Your task to perform on an android device: Clear all items from cart on ebay. Add "razer kraken" to the cart on ebay, then select checkout. Image 0: 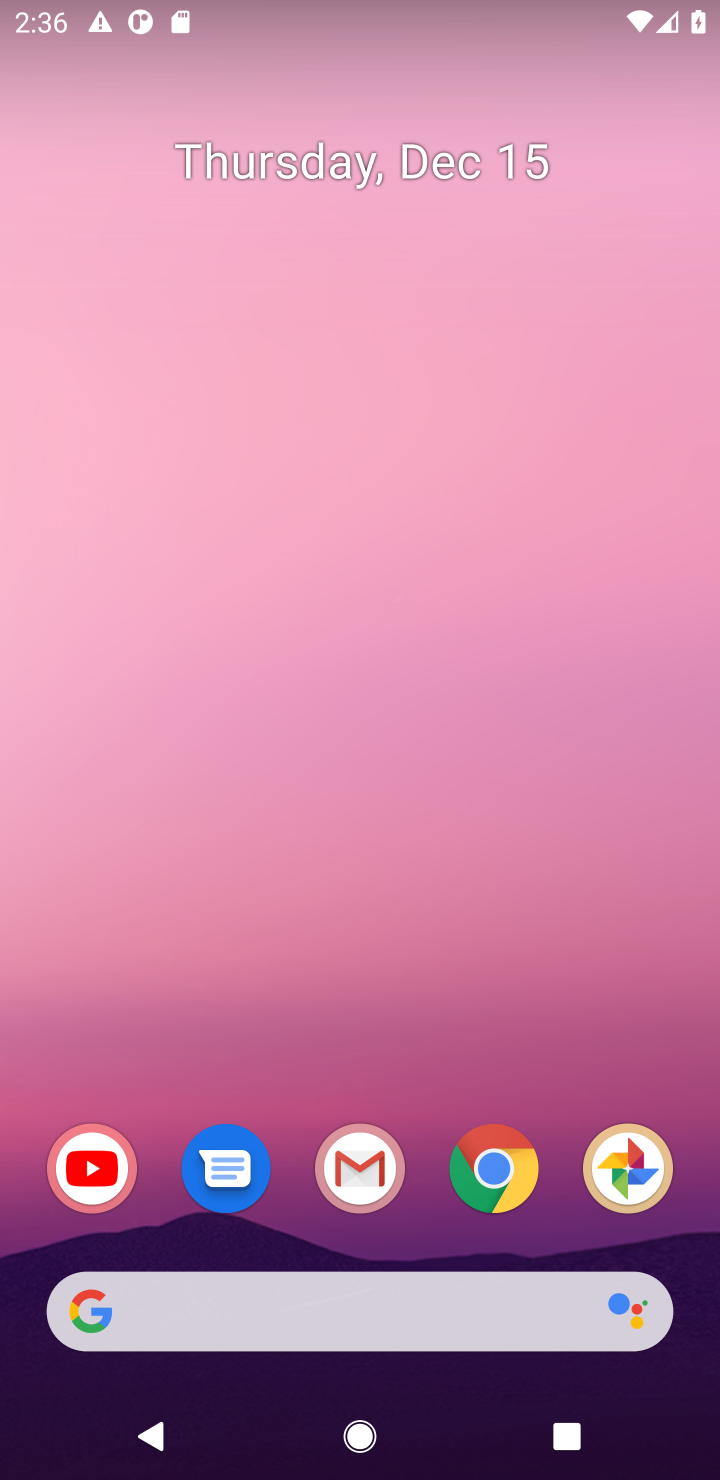
Step 0: click (503, 1179)
Your task to perform on an android device: Clear all items from cart on ebay. Add "razer kraken" to the cart on ebay, then select checkout. Image 1: 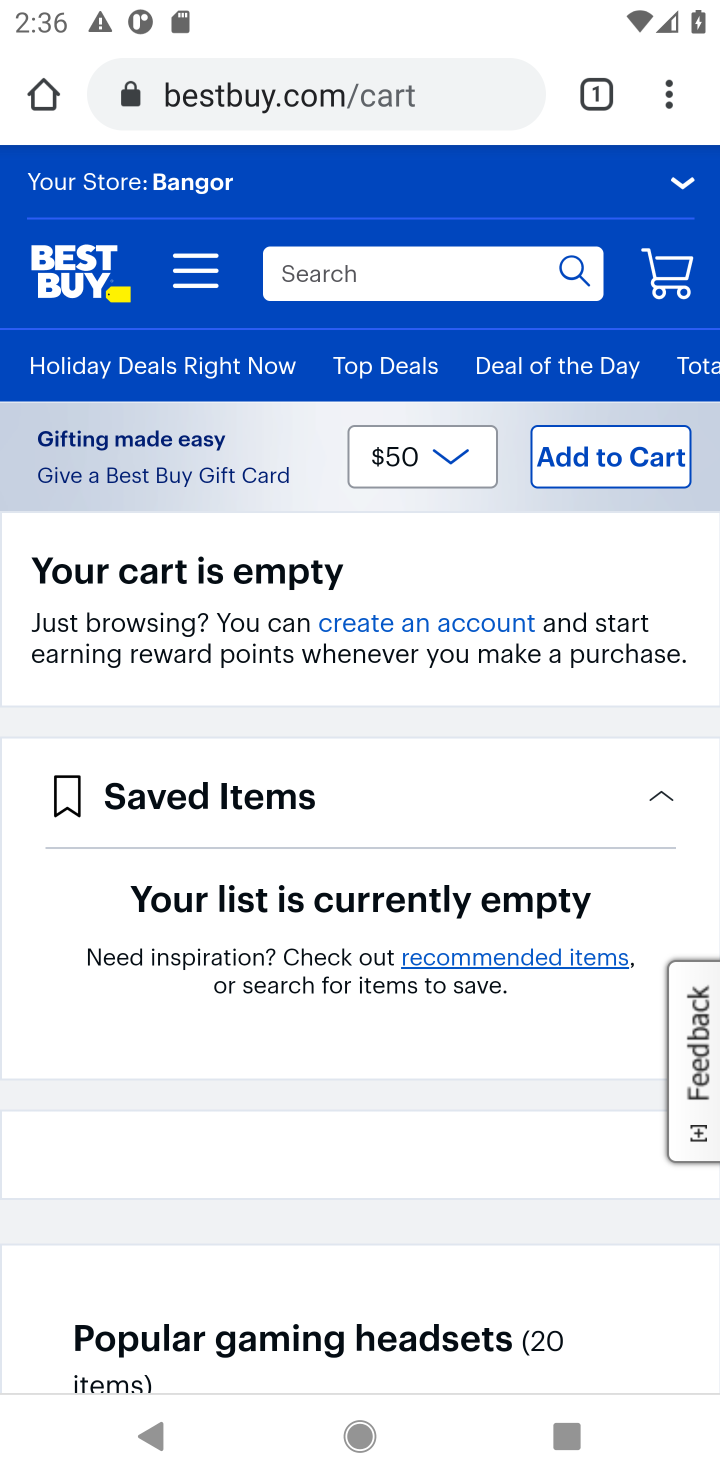
Step 1: click (56, 110)
Your task to perform on an android device: Clear all items from cart on ebay. Add "razer kraken" to the cart on ebay, then select checkout. Image 2: 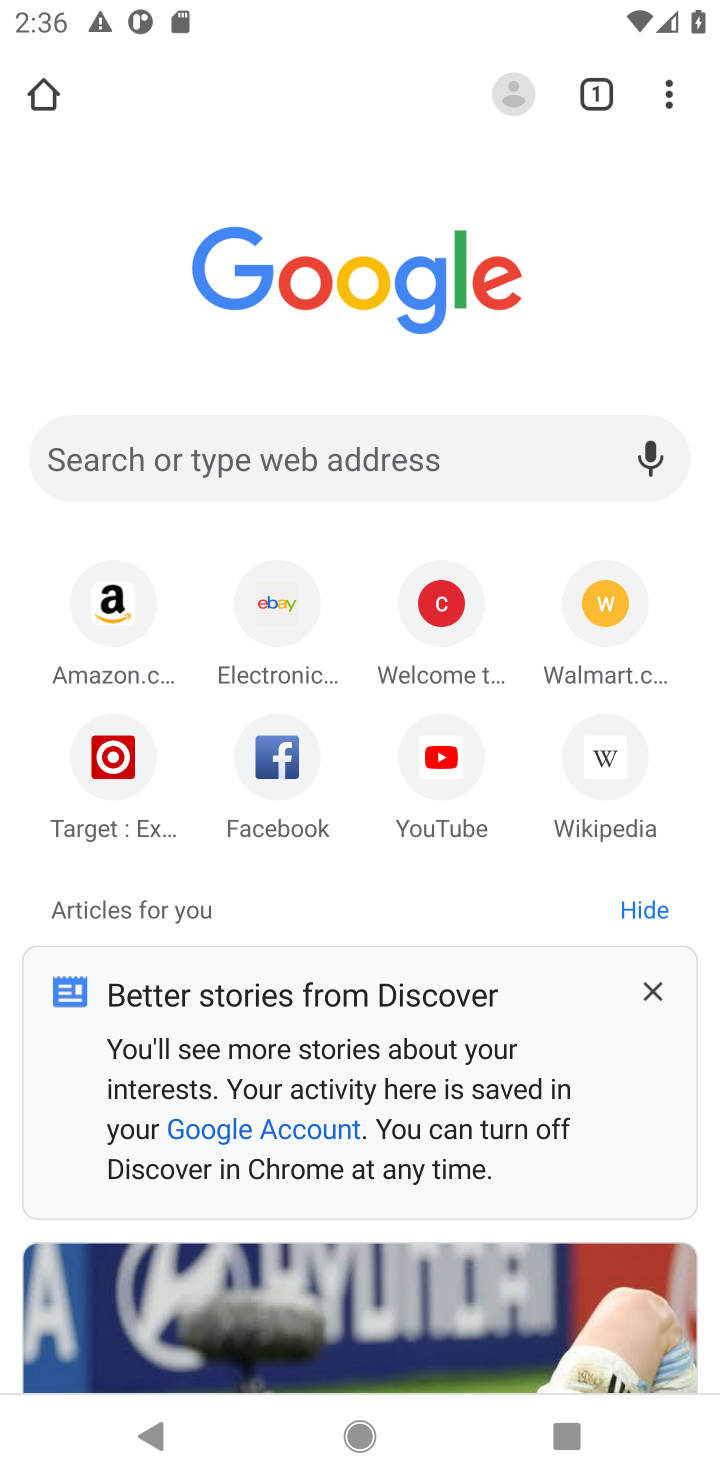
Step 2: click (376, 464)
Your task to perform on an android device: Clear all items from cart on ebay. Add "razer kraken" to the cart on ebay, then select checkout. Image 3: 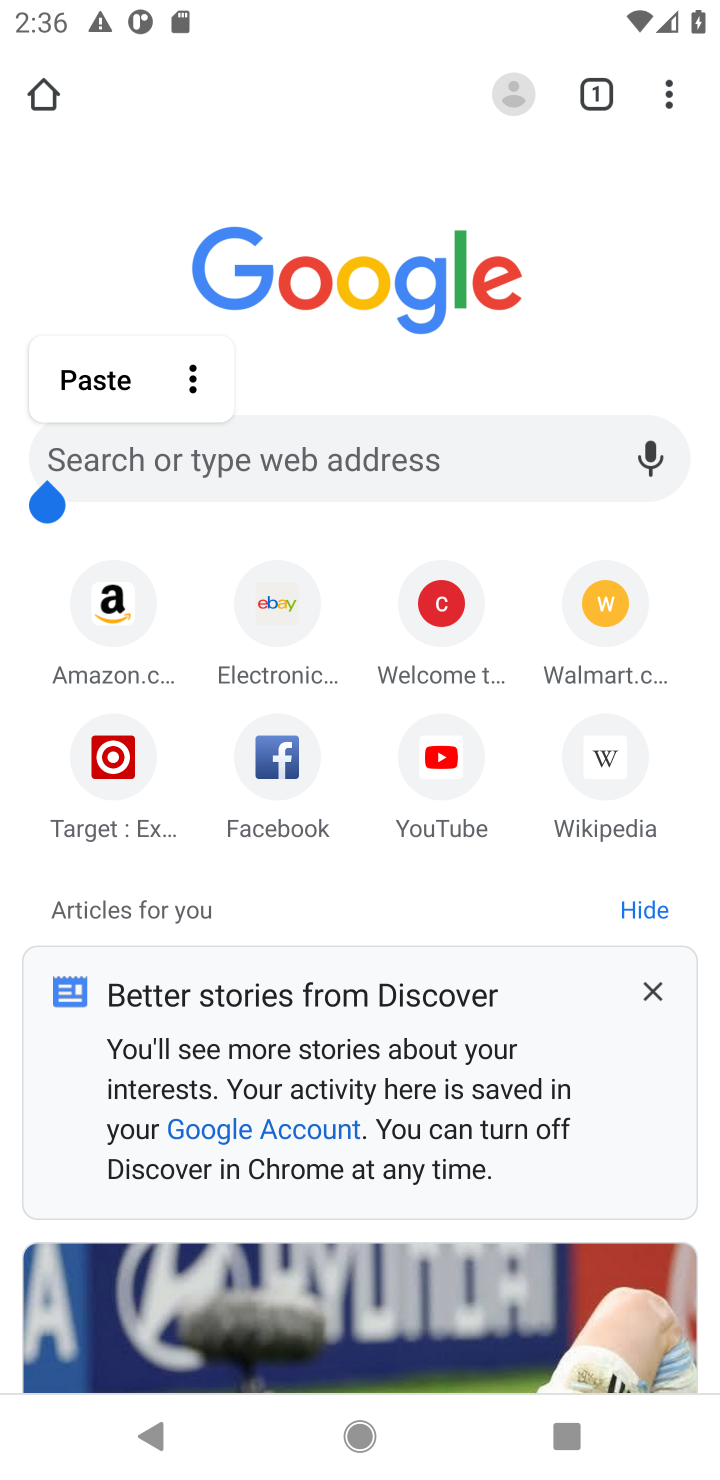
Step 3: click (376, 464)
Your task to perform on an android device: Clear all items from cart on ebay. Add "razer kraken" to the cart on ebay, then select checkout. Image 4: 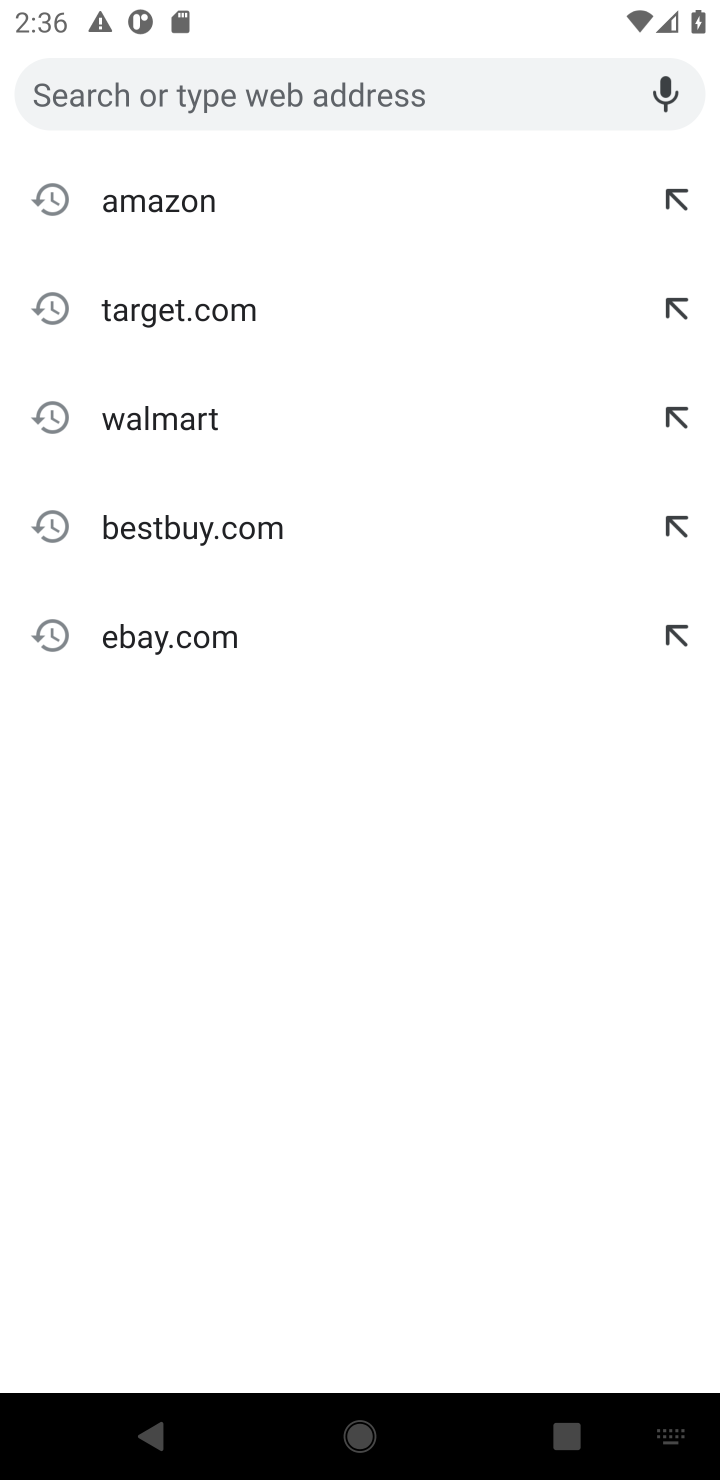
Step 4: click (377, 465)
Your task to perform on an android device: Clear all items from cart on ebay. Add "razer kraken" to the cart on ebay, then select checkout. Image 5: 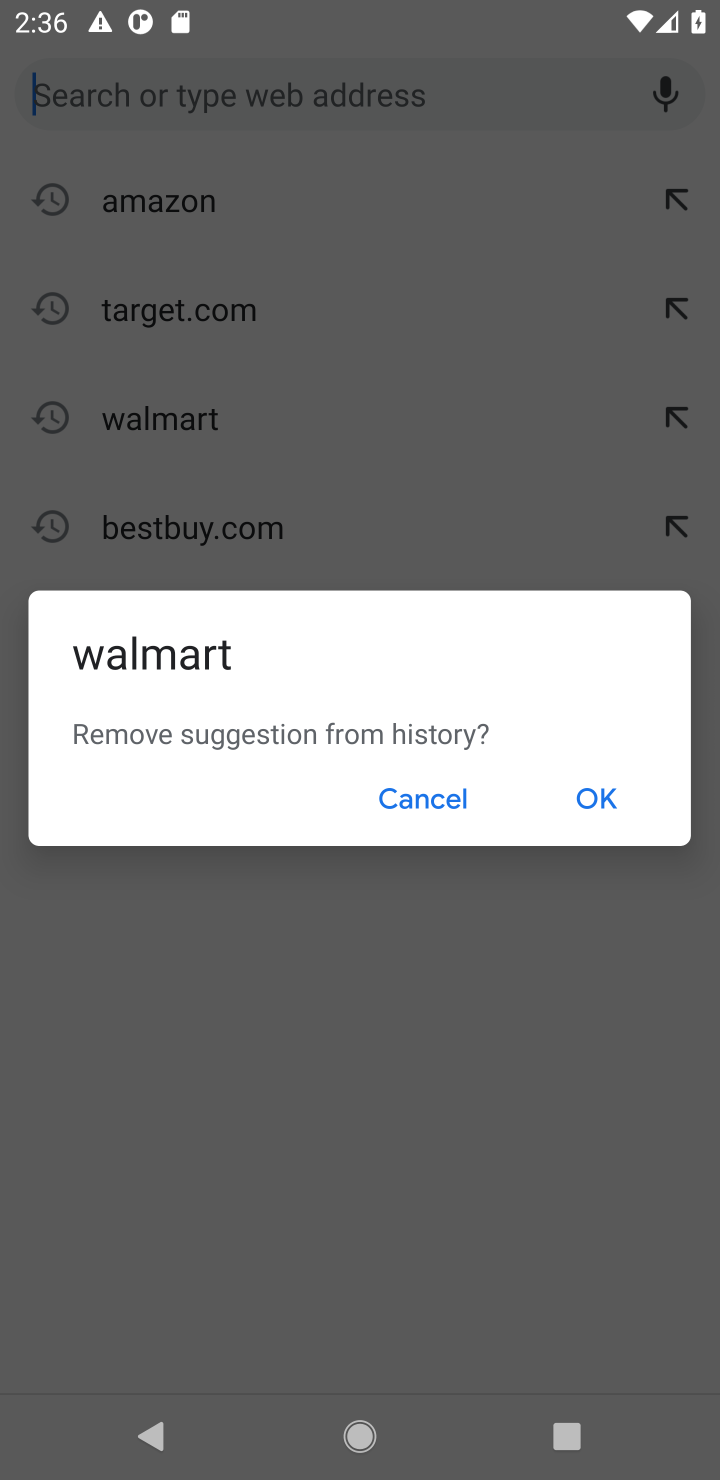
Step 5: click (400, 451)
Your task to perform on an android device: Clear all items from cart on ebay. Add "razer kraken" to the cart on ebay, then select checkout. Image 6: 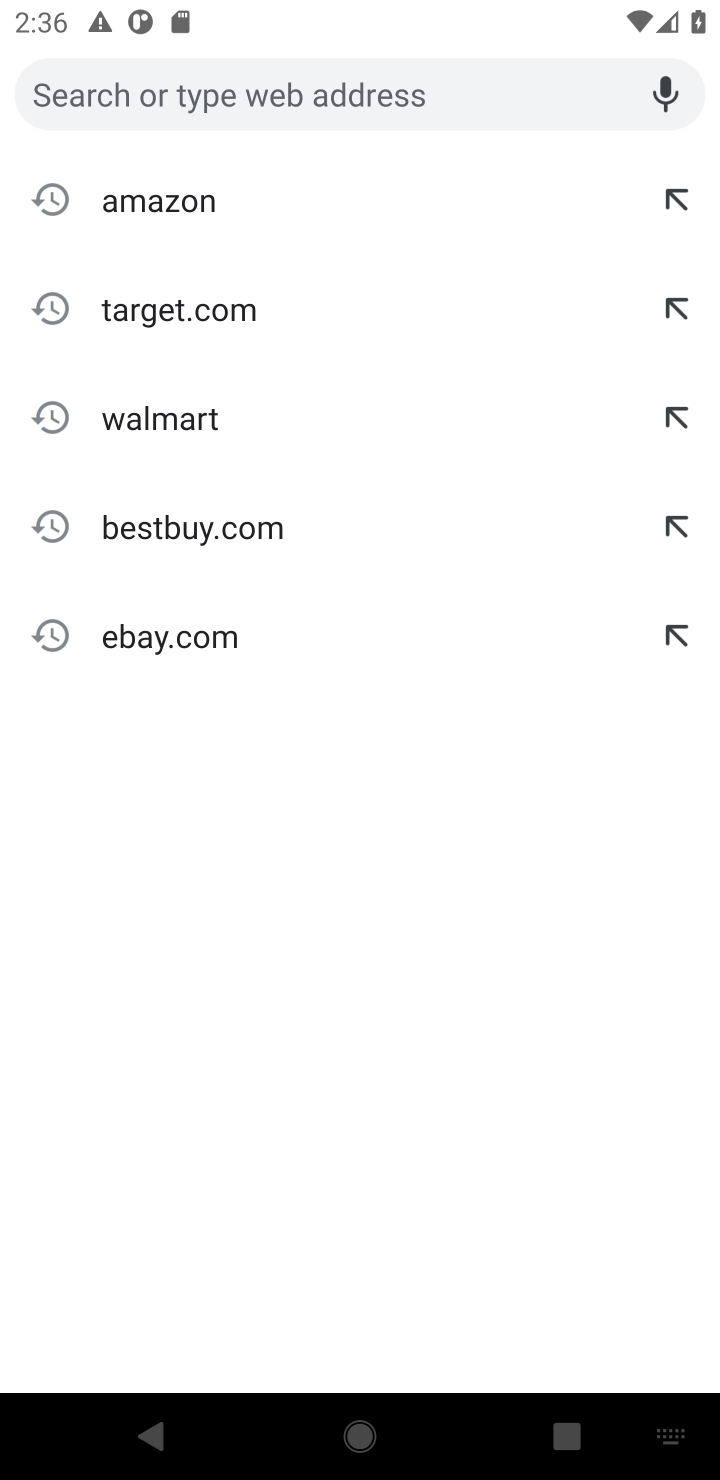
Step 6: click (432, 793)
Your task to perform on an android device: Clear all items from cart on ebay. Add "razer kraken" to the cart on ebay, then select checkout. Image 7: 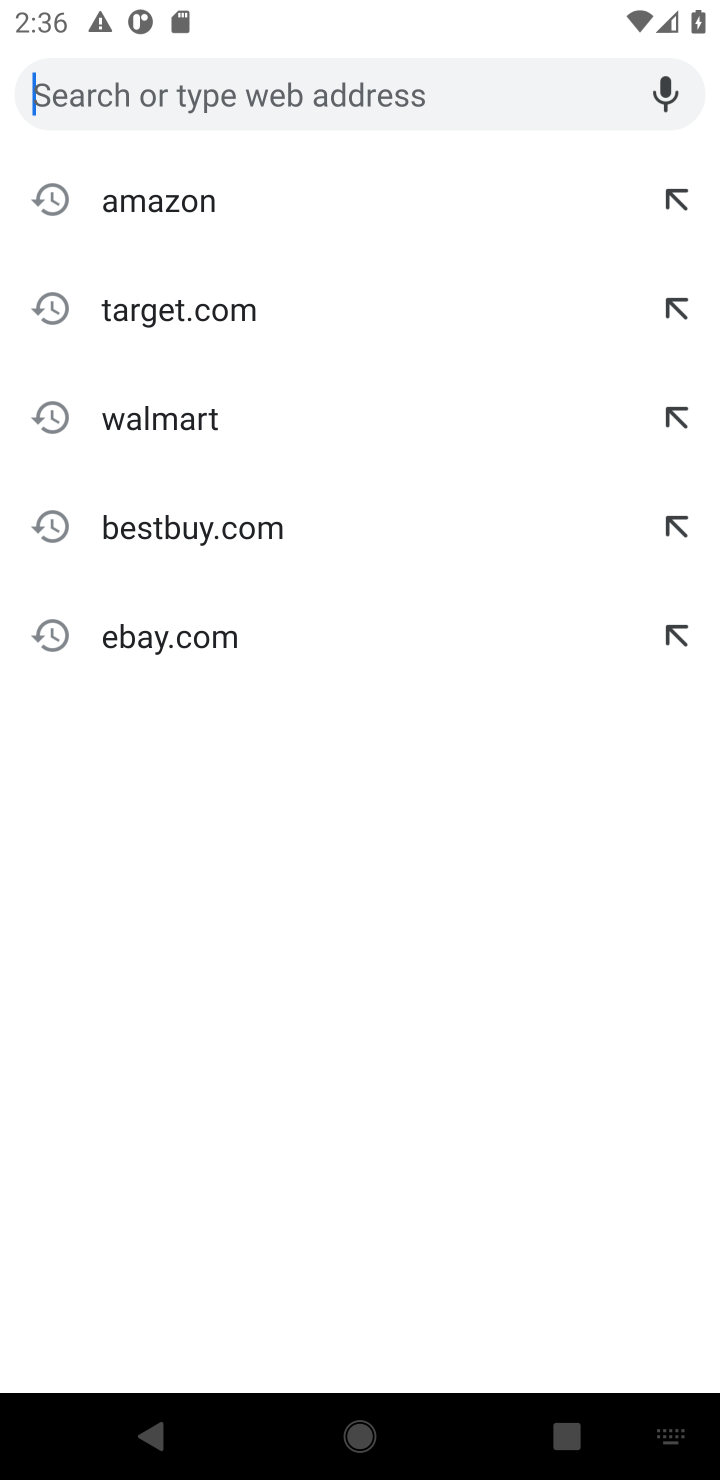
Step 7: click (176, 623)
Your task to perform on an android device: Clear all items from cart on ebay. Add "razer kraken" to the cart on ebay, then select checkout. Image 8: 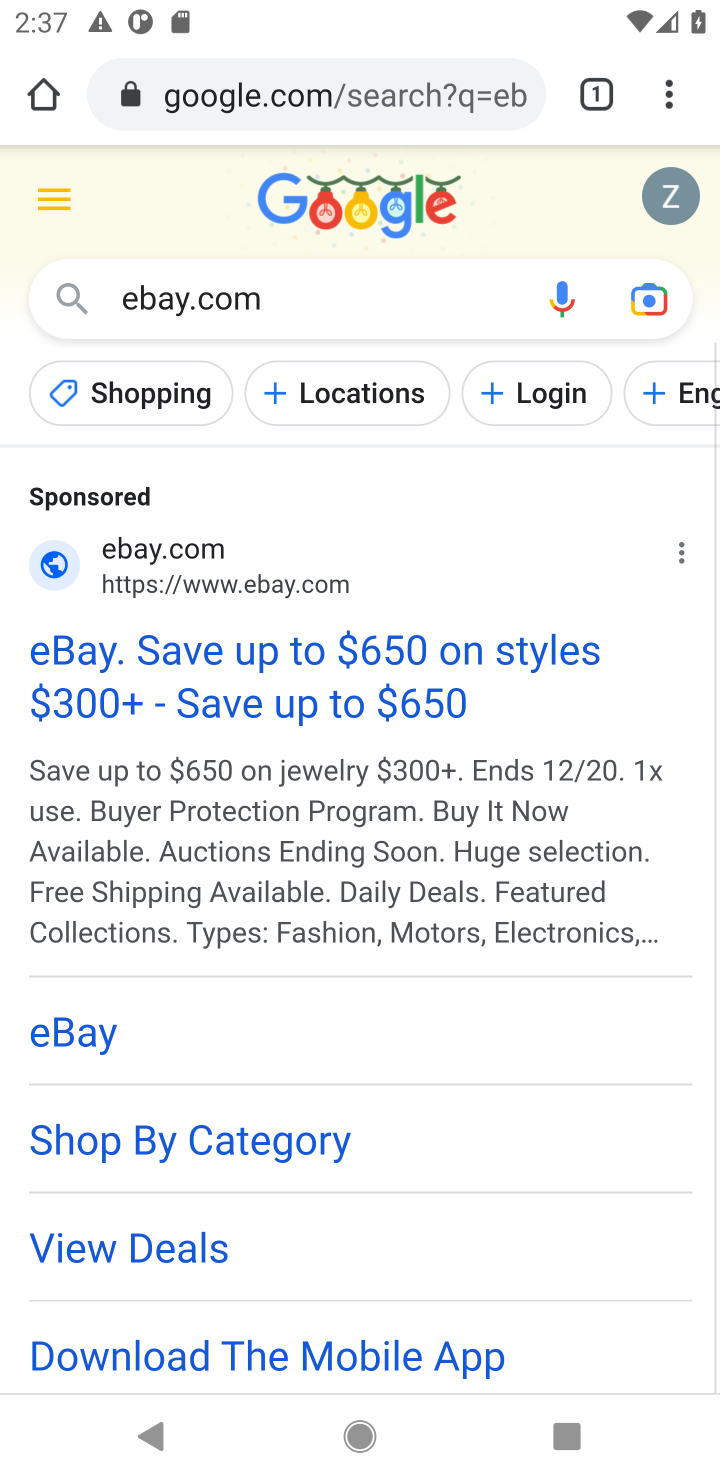
Step 8: click (170, 542)
Your task to perform on an android device: Clear all items from cart on ebay. Add "razer kraken" to the cart on ebay, then select checkout. Image 9: 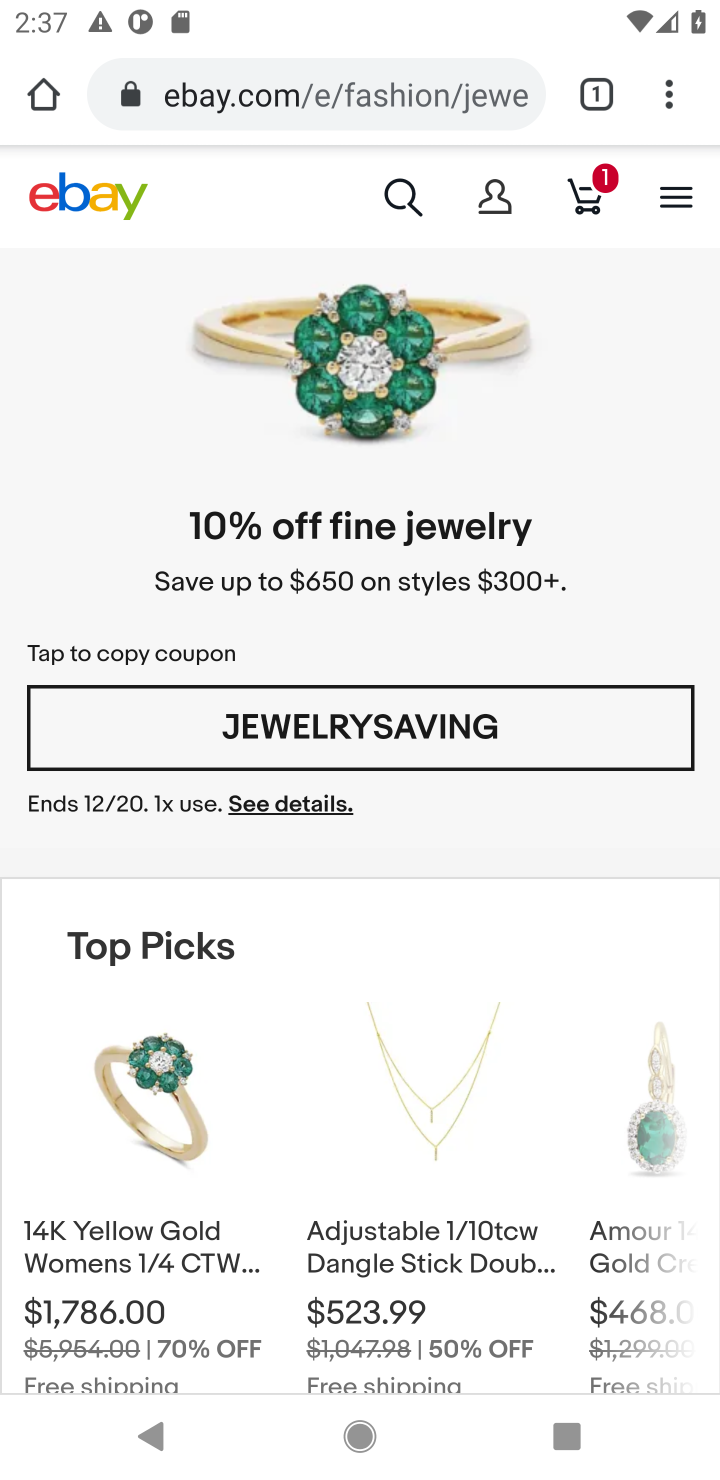
Step 9: click (598, 218)
Your task to perform on an android device: Clear all items from cart on ebay. Add "razer kraken" to the cart on ebay, then select checkout. Image 10: 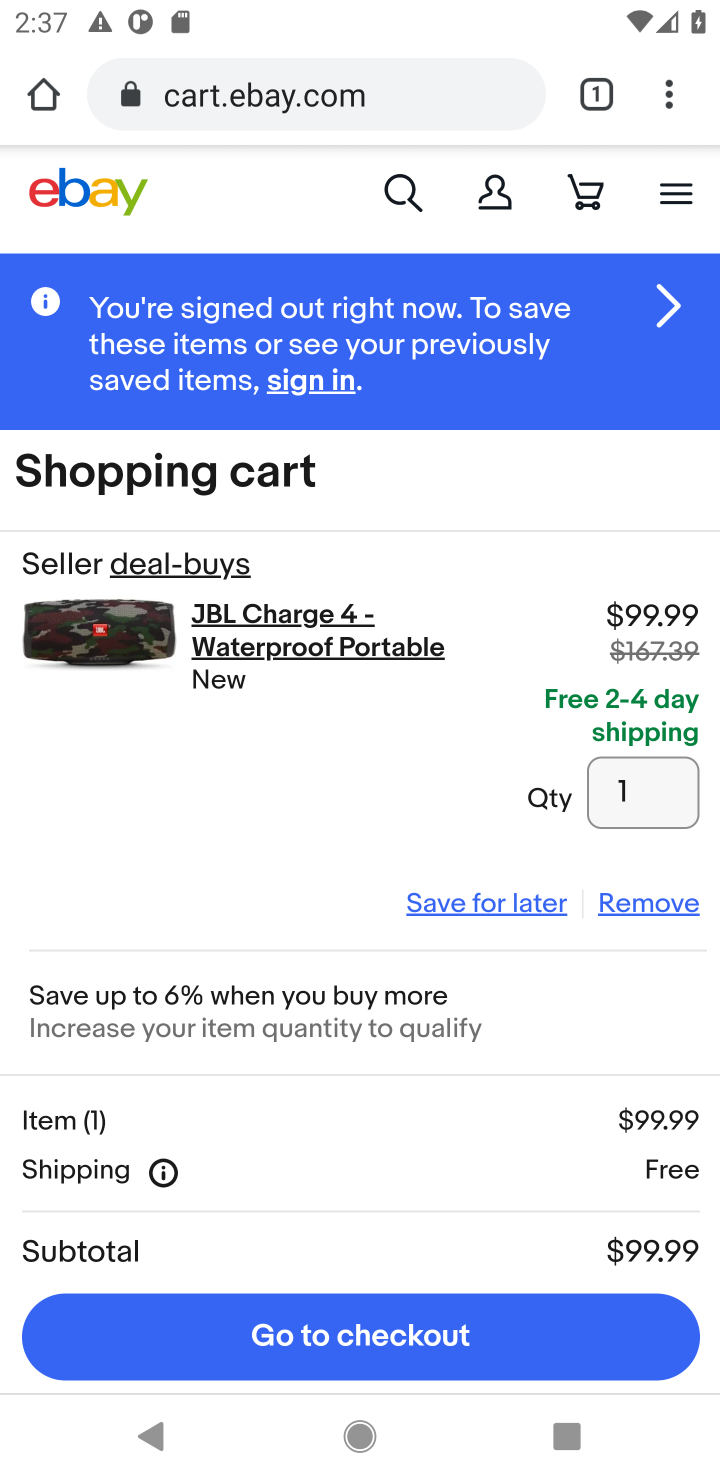
Step 10: click (647, 897)
Your task to perform on an android device: Clear all items from cart on ebay. Add "razer kraken" to the cart on ebay, then select checkout. Image 11: 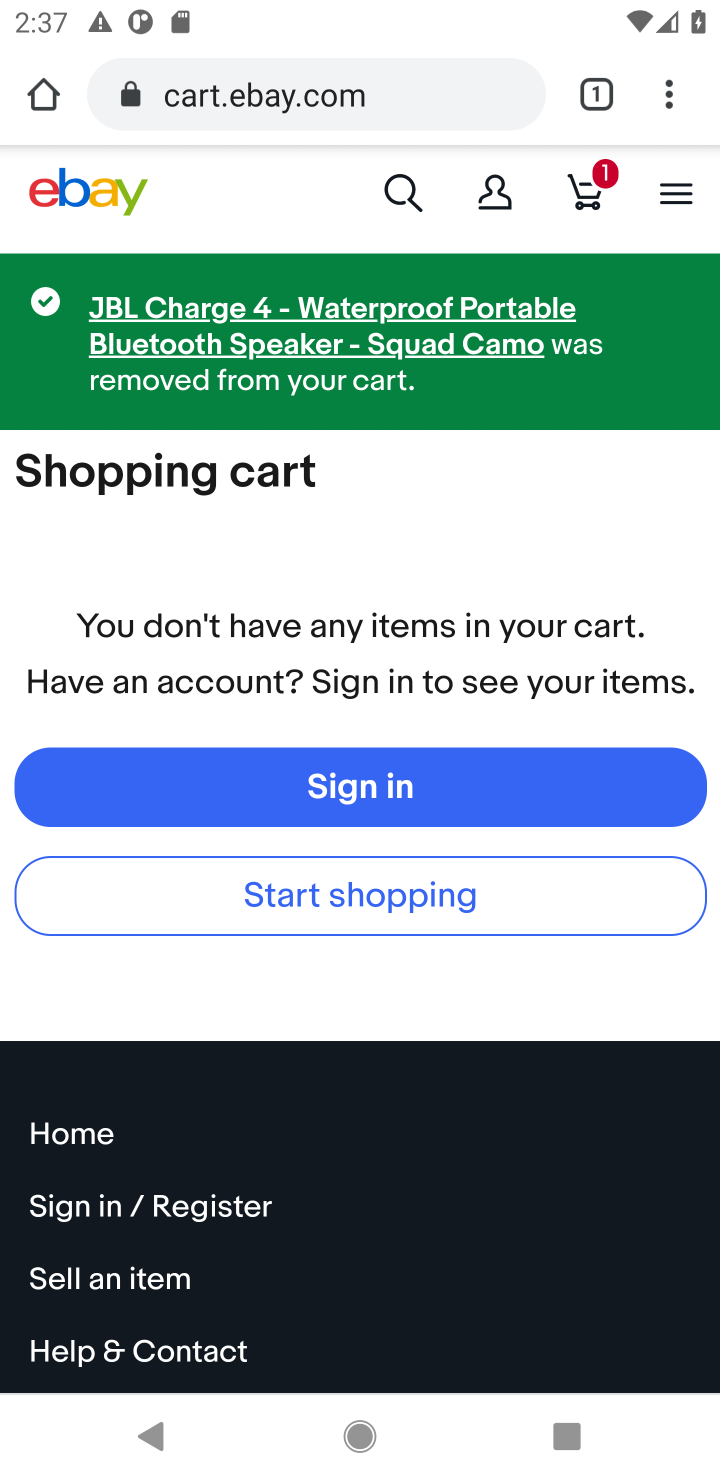
Step 11: click (581, 180)
Your task to perform on an android device: Clear all items from cart on ebay. Add "razer kraken" to the cart on ebay, then select checkout. Image 12: 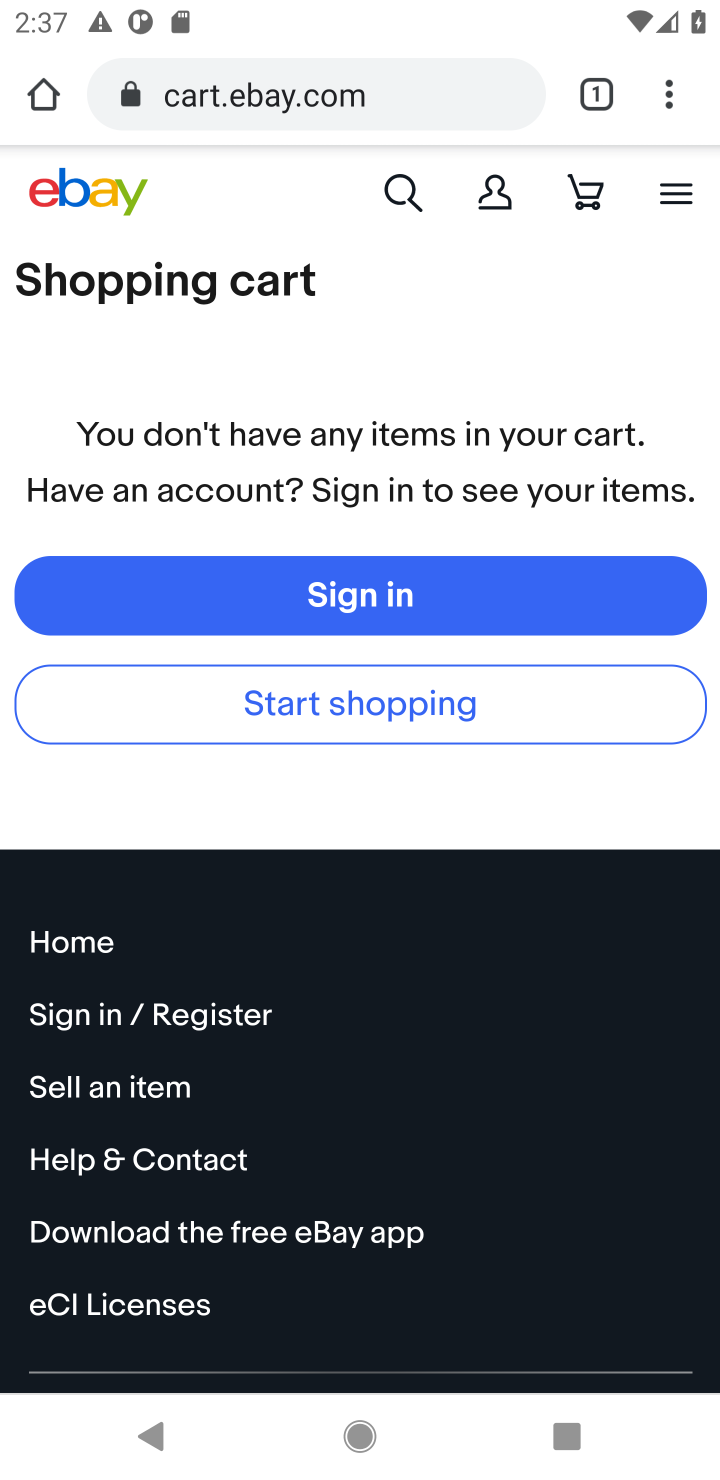
Step 12: click (395, 187)
Your task to perform on an android device: Clear all items from cart on ebay. Add "razer kraken" to the cart on ebay, then select checkout. Image 13: 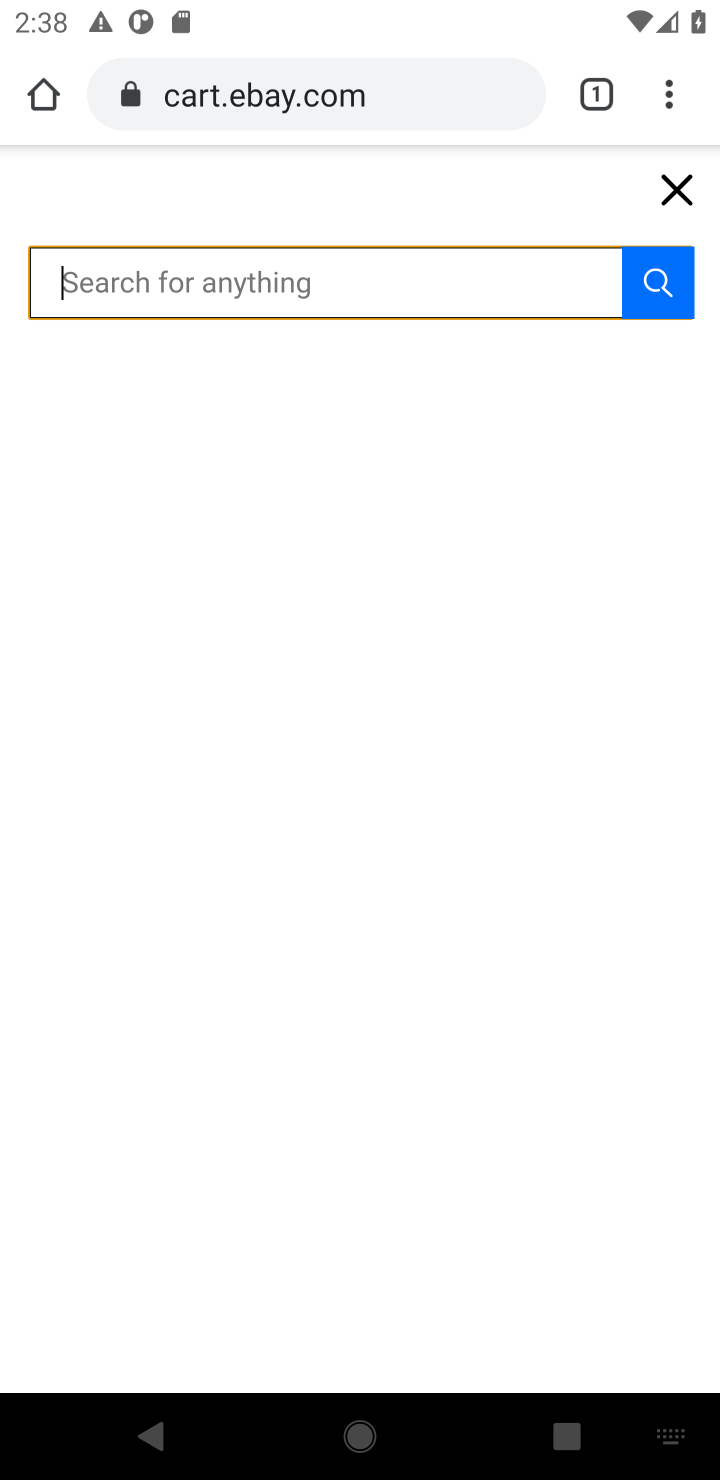
Step 13: type "razer kraken"
Your task to perform on an android device: Clear all items from cart on ebay. Add "razer kraken" to the cart on ebay, then select checkout. Image 14: 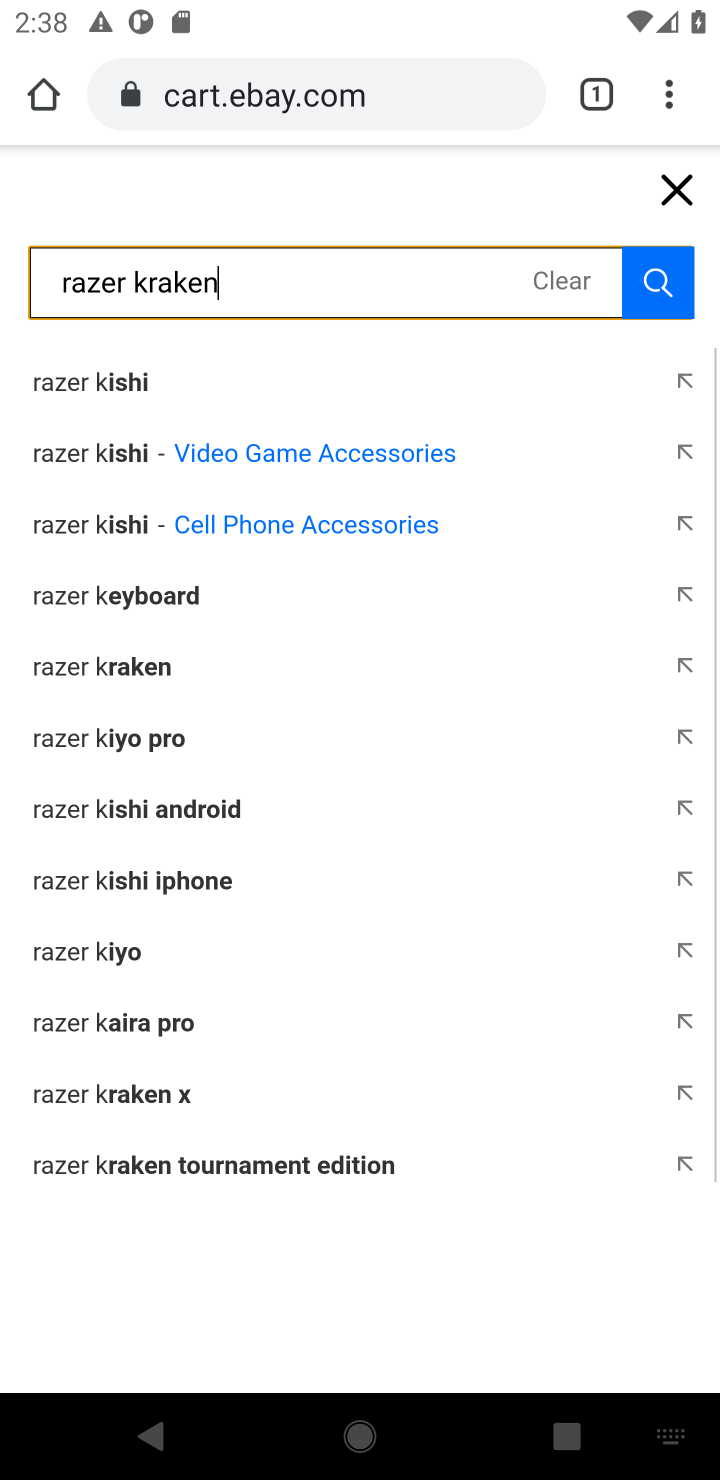
Step 14: press enter
Your task to perform on an android device: Clear all items from cart on ebay. Add "razer kraken" to the cart on ebay, then select checkout. Image 15: 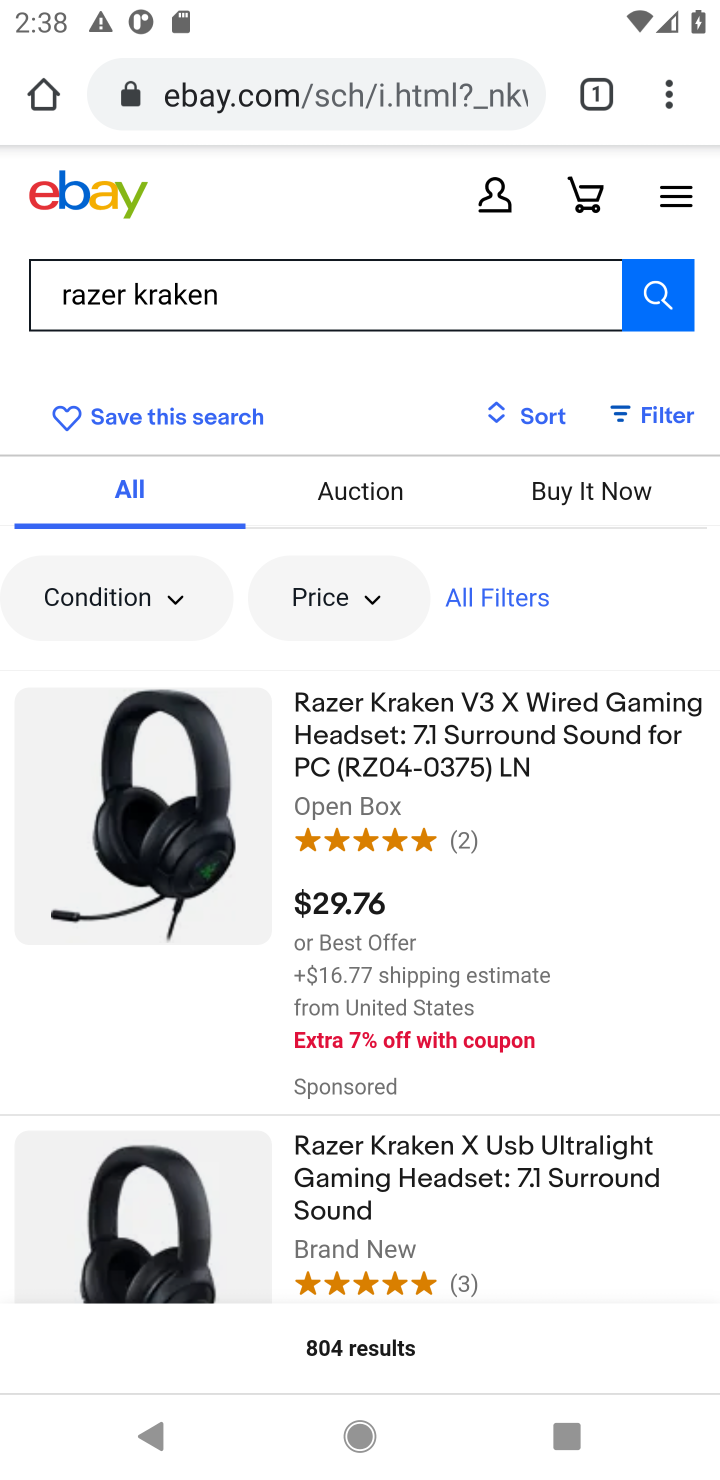
Step 15: click (136, 765)
Your task to perform on an android device: Clear all items from cart on ebay. Add "razer kraken" to the cart on ebay, then select checkout. Image 16: 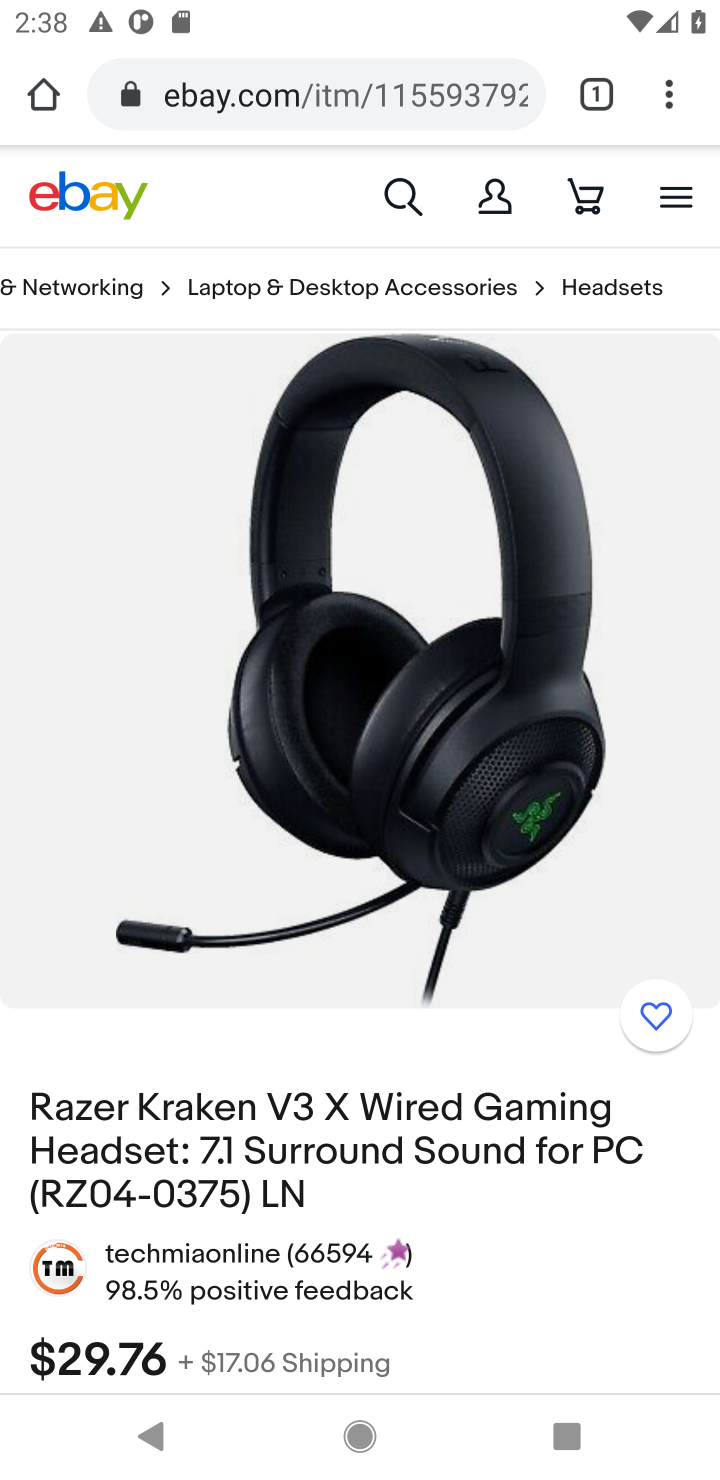
Step 16: drag from (234, 1151) to (546, 514)
Your task to perform on an android device: Clear all items from cart on ebay. Add "razer kraken" to the cart on ebay, then select checkout. Image 17: 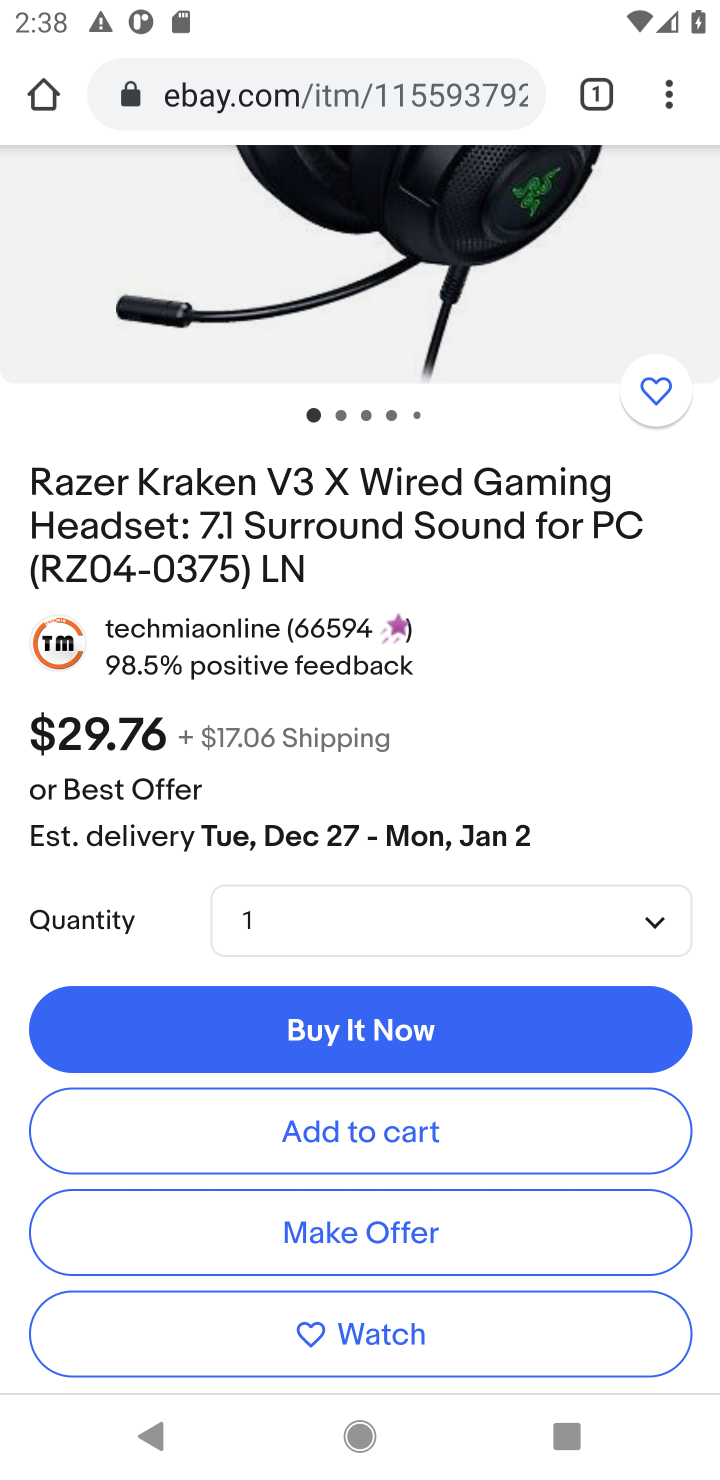
Step 17: click (366, 1134)
Your task to perform on an android device: Clear all items from cart on ebay. Add "razer kraken" to the cart on ebay, then select checkout. Image 18: 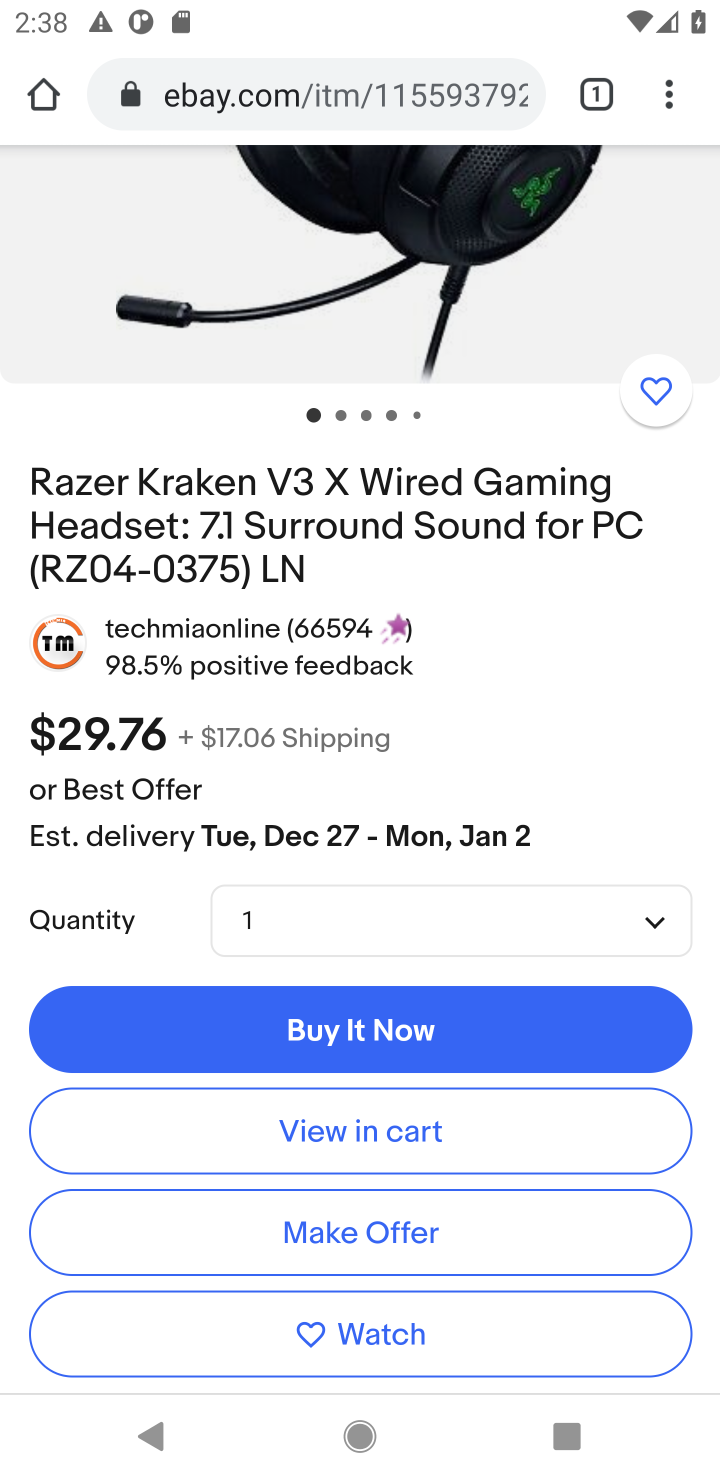
Step 18: click (366, 1134)
Your task to perform on an android device: Clear all items from cart on ebay. Add "razer kraken" to the cart on ebay, then select checkout. Image 19: 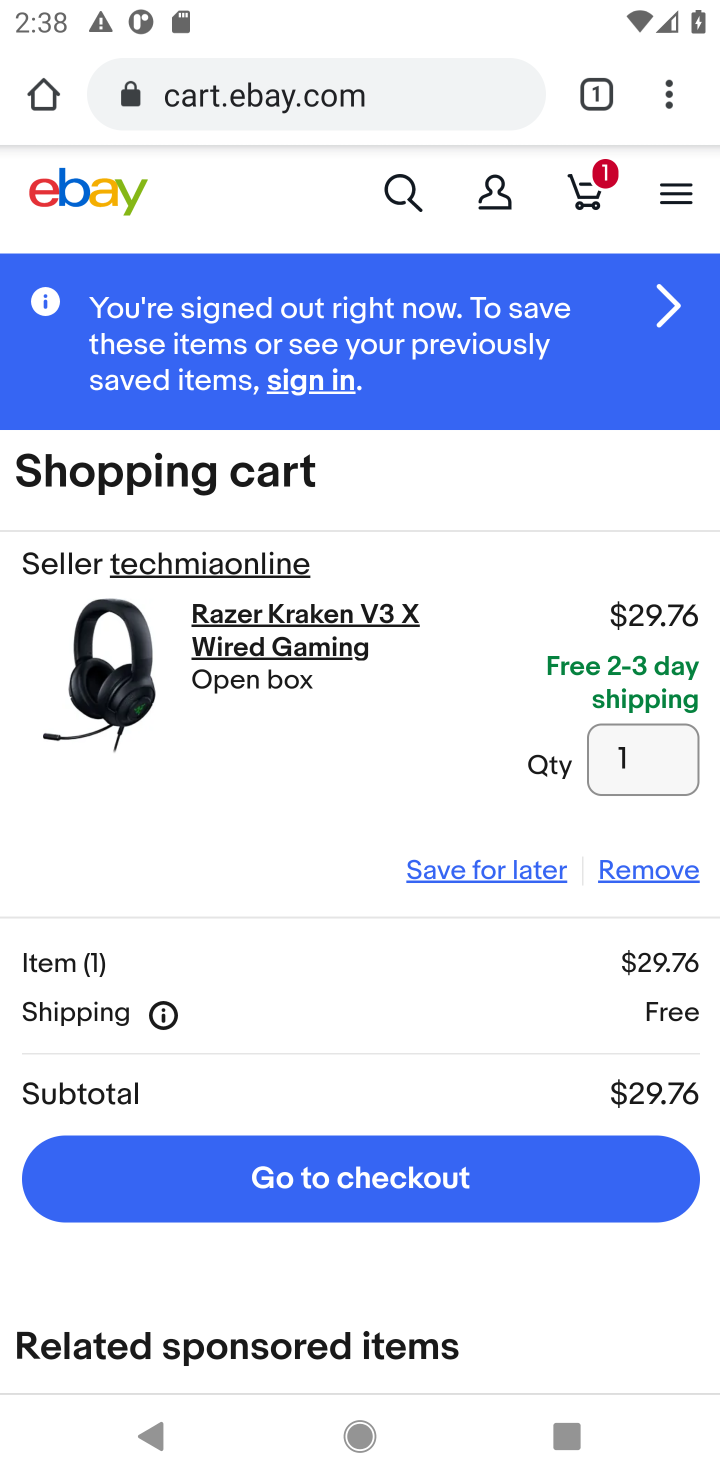
Step 19: click (343, 1173)
Your task to perform on an android device: Clear all items from cart on ebay. Add "razer kraken" to the cart on ebay, then select checkout. Image 20: 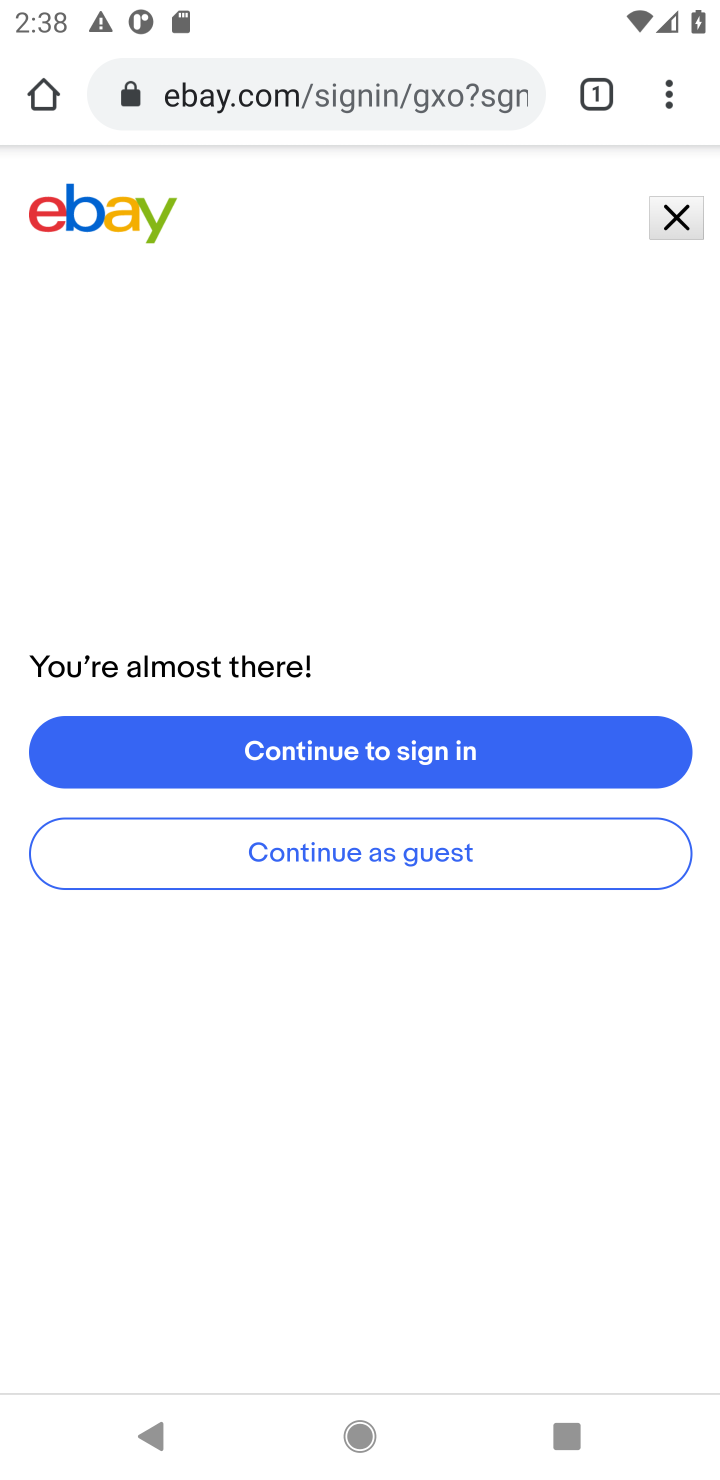
Step 20: task complete